Your task to perform on an android device: When is my next appointment? Image 0: 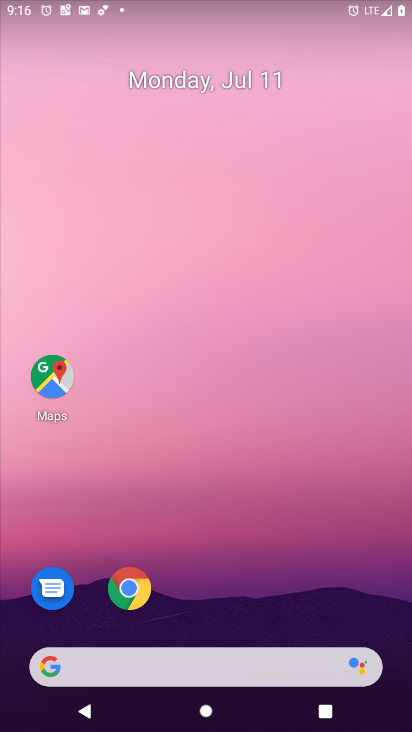
Step 0: drag from (205, 667) to (288, 74)
Your task to perform on an android device: When is my next appointment? Image 1: 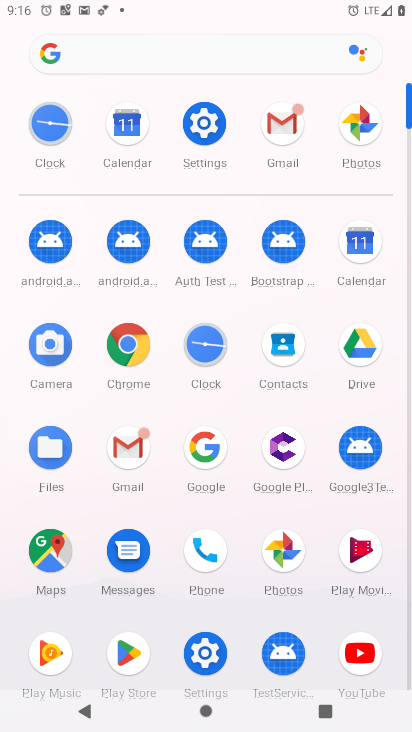
Step 1: click (357, 255)
Your task to perform on an android device: When is my next appointment? Image 2: 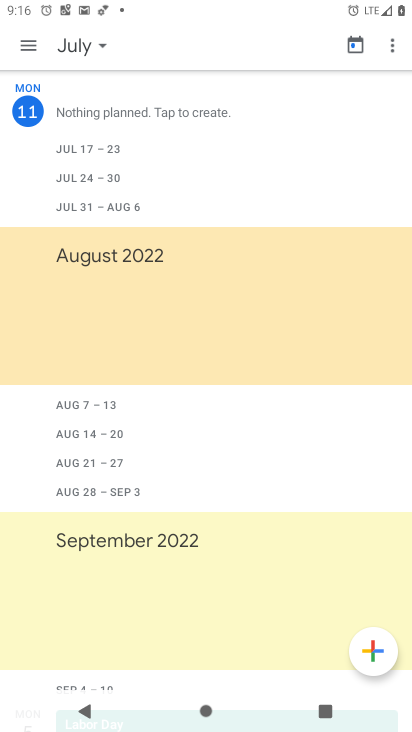
Step 2: task complete